Your task to perform on an android device: Go to Google Image 0: 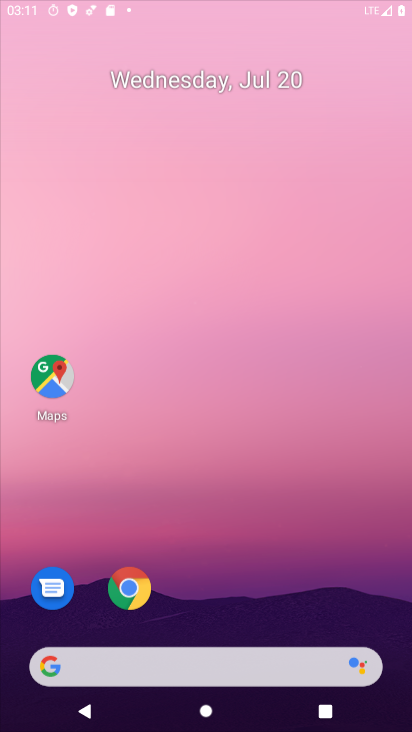
Step 0: drag from (173, 535) to (212, 86)
Your task to perform on an android device: Go to Google Image 1: 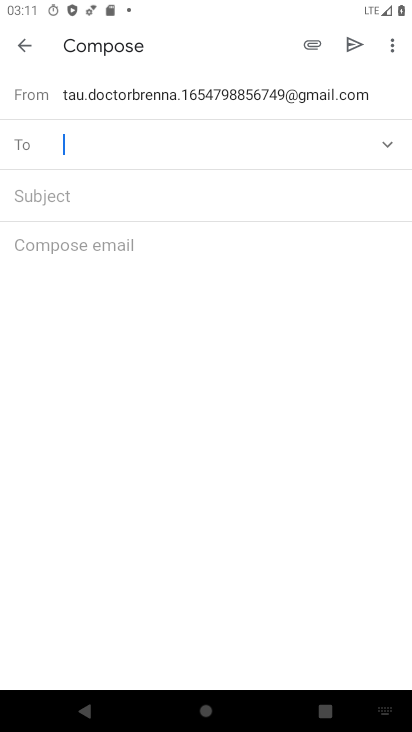
Step 1: press home button
Your task to perform on an android device: Go to Google Image 2: 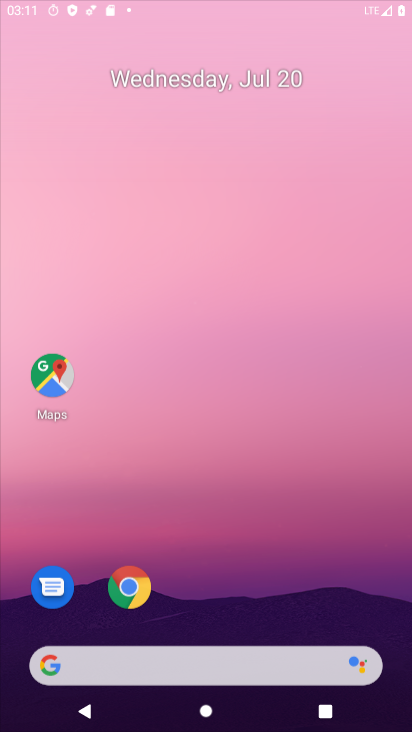
Step 2: click (319, 41)
Your task to perform on an android device: Go to Google Image 3: 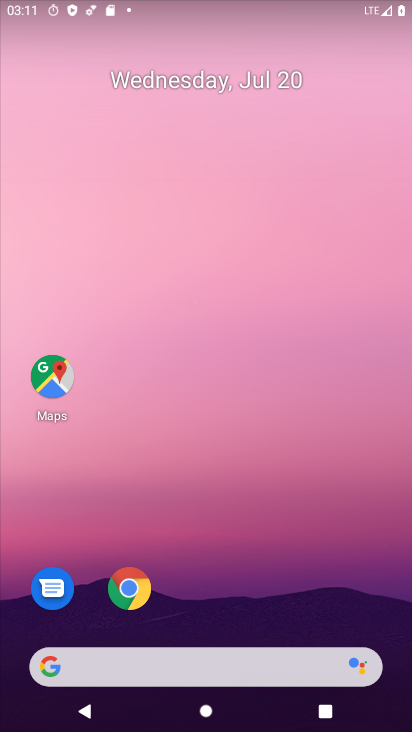
Step 3: drag from (227, 633) to (280, 28)
Your task to perform on an android device: Go to Google Image 4: 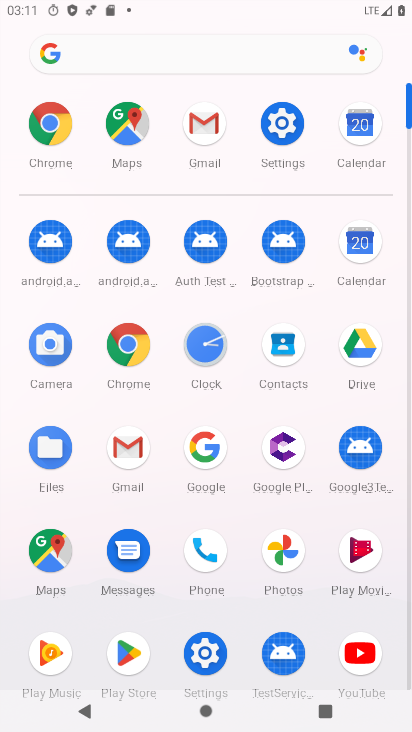
Step 4: click (199, 455)
Your task to perform on an android device: Go to Google Image 5: 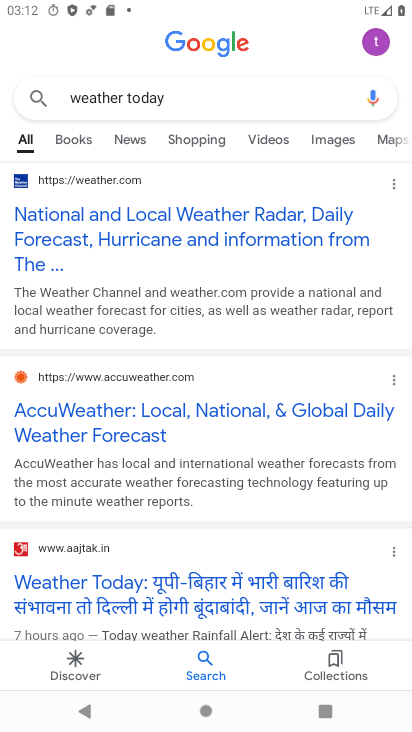
Step 5: task complete